Your task to perform on an android device: set the stopwatch Image 0: 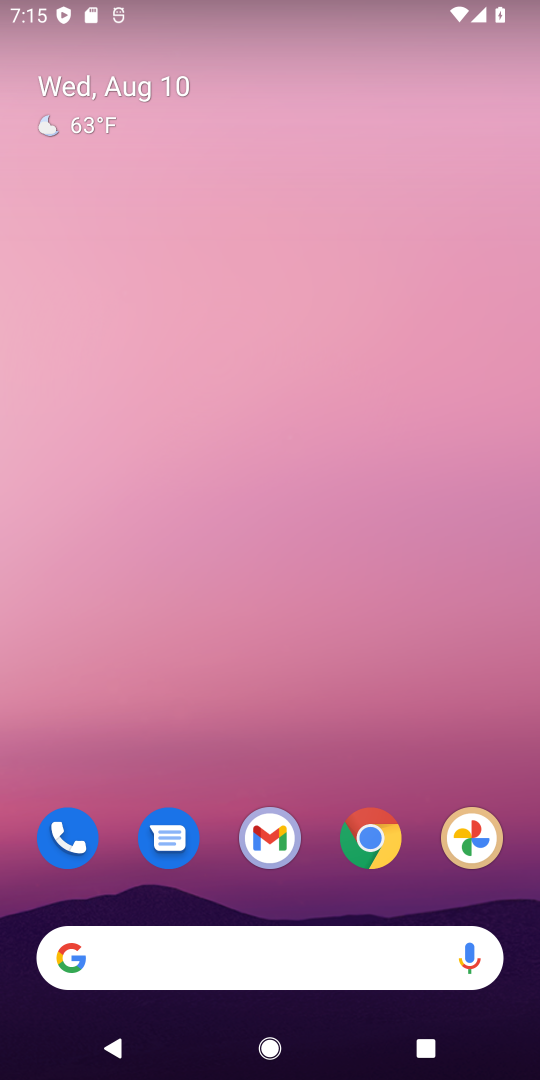
Step 0: drag from (319, 869) to (368, 171)
Your task to perform on an android device: set the stopwatch Image 1: 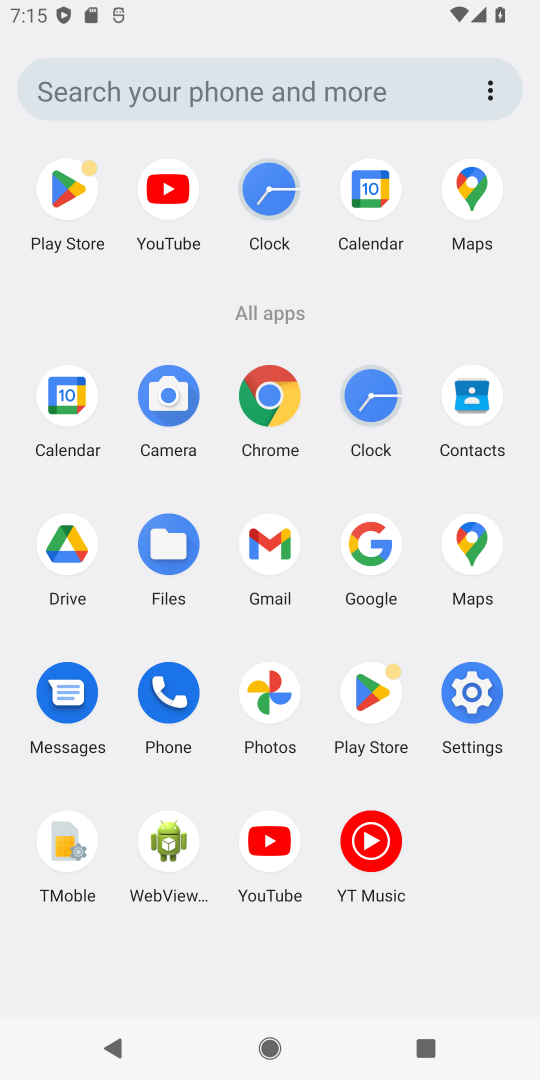
Step 1: click (391, 396)
Your task to perform on an android device: set the stopwatch Image 2: 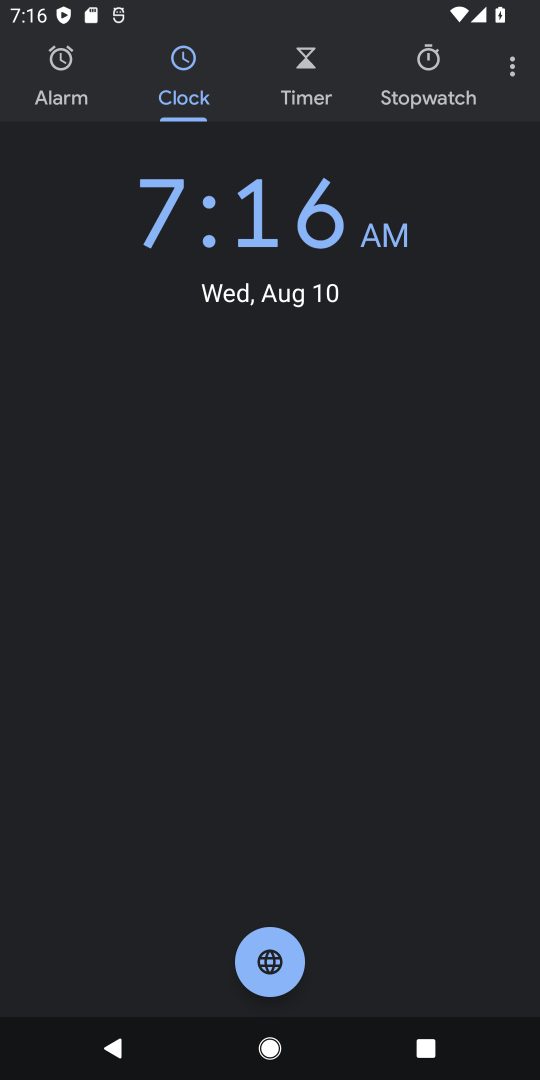
Step 2: click (437, 85)
Your task to perform on an android device: set the stopwatch Image 3: 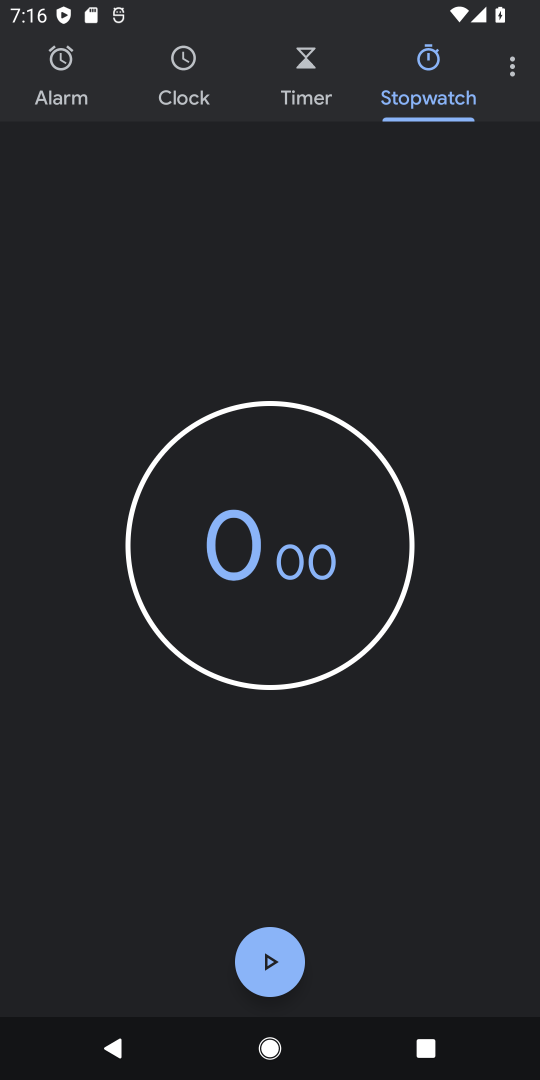
Step 3: click (273, 955)
Your task to perform on an android device: set the stopwatch Image 4: 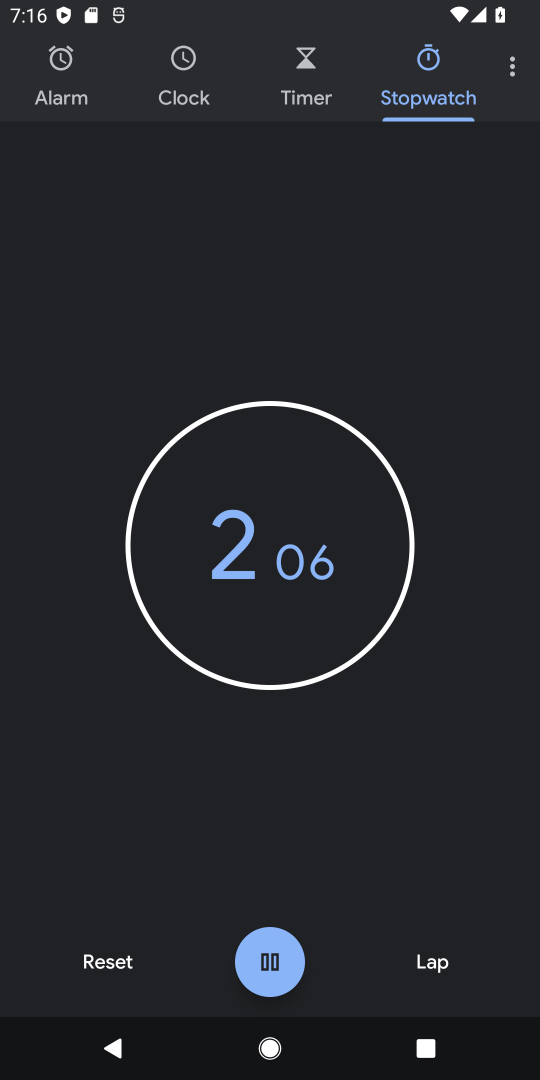
Step 4: task complete